Your task to perform on an android device: delete location history Image 0: 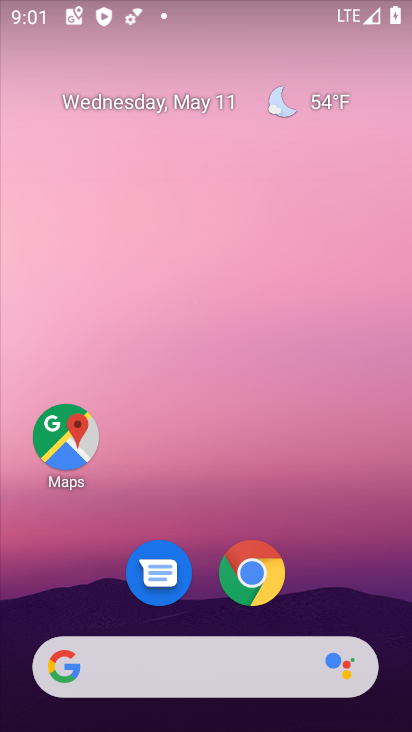
Step 0: drag from (159, 614) to (220, 12)
Your task to perform on an android device: delete location history Image 1: 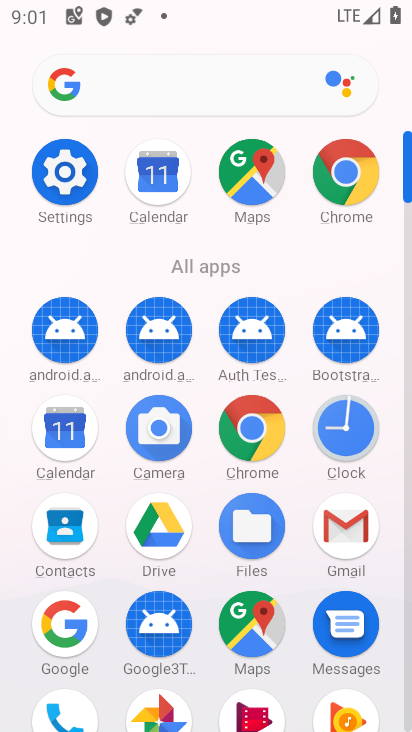
Step 1: click (243, 637)
Your task to perform on an android device: delete location history Image 2: 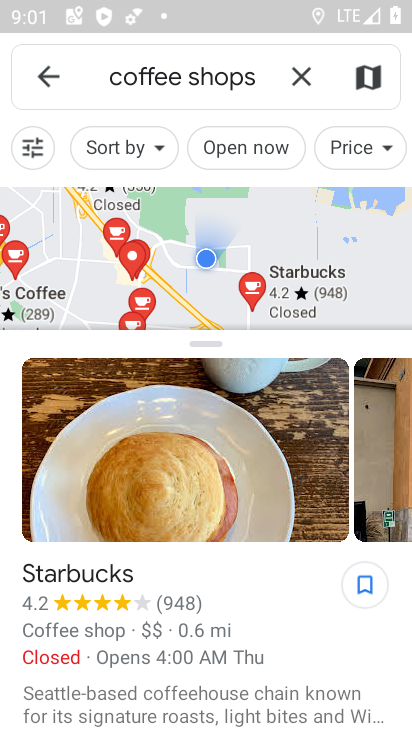
Step 2: click (297, 70)
Your task to perform on an android device: delete location history Image 3: 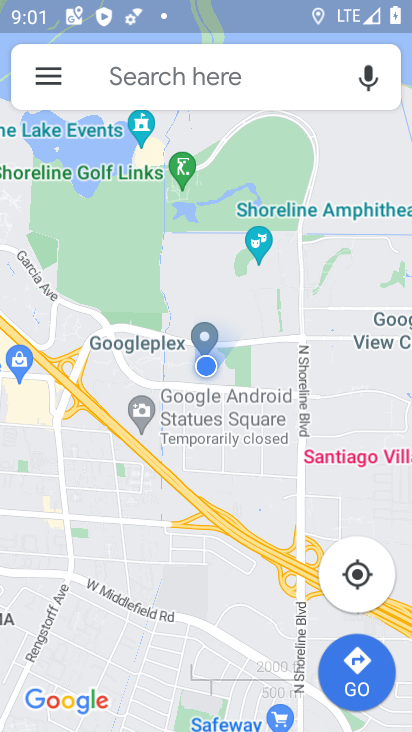
Step 3: click (47, 71)
Your task to perform on an android device: delete location history Image 4: 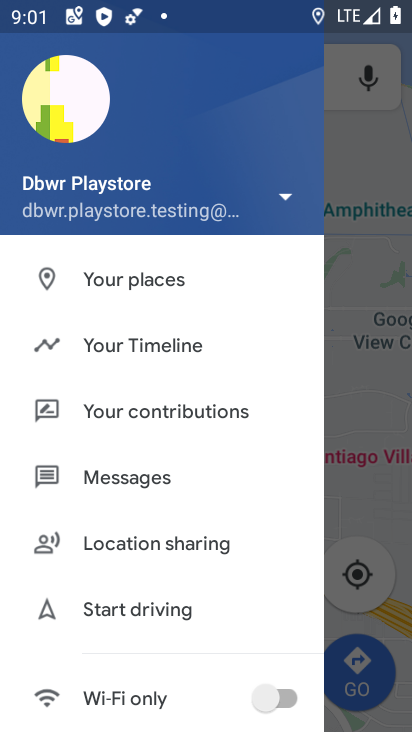
Step 4: drag from (153, 642) to (181, 371)
Your task to perform on an android device: delete location history Image 5: 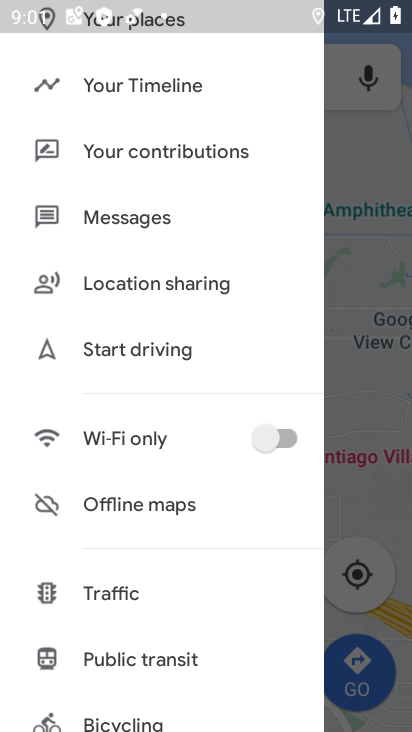
Step 5: click (162, 88)
Your task to perform on an android device: delete location history Image 6: 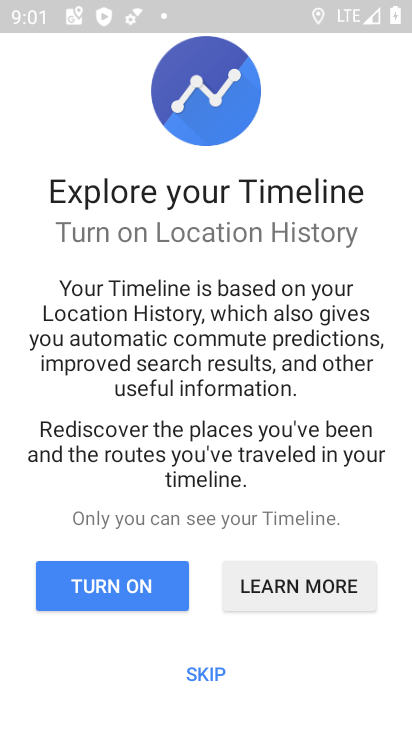
Step 6: click (213, 672)
Your task to perform on an android device: delete location history Image 7: 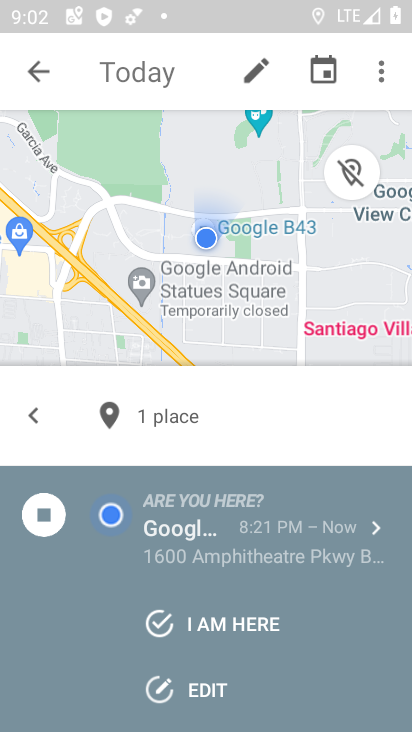
Step 7: click (389, 70)
Your task to perform on an android device: delete location history Image 8: 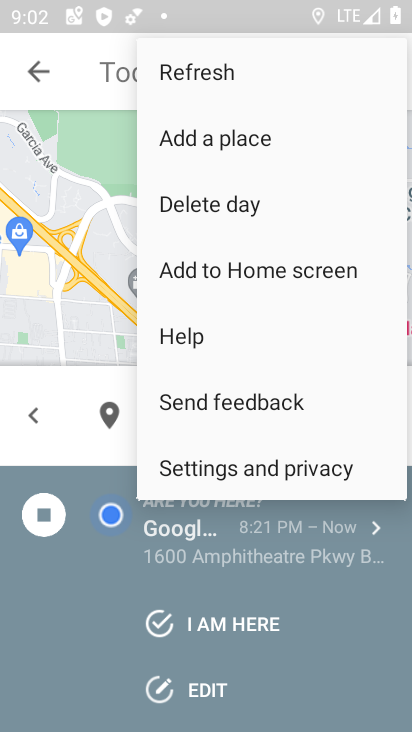
Step 8: click (224, 464)
Your task to perform on an android device: delete location history Image 9: 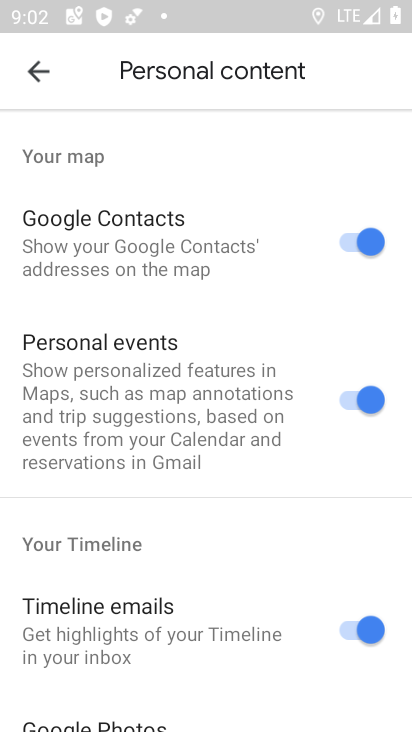
Step 9: drag from (115, 622) to (162, 161)
Your task to perform on an android device: delete location history Image 10: 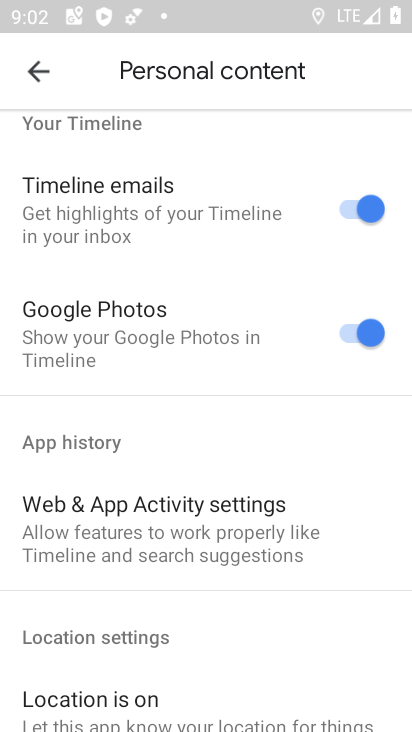
Step 10: drag from (99, 695) to (110, 199)
Your task to perform on an android device: delete location history Image 11: 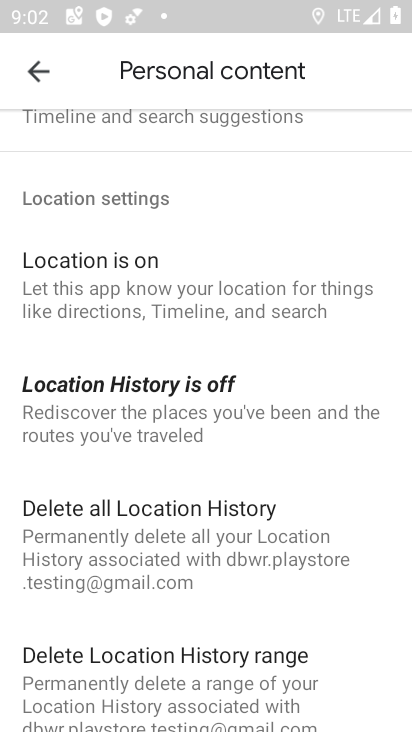
Step 11: click (115, 547)
Your task to perform on an android device: delete location history Image 12: 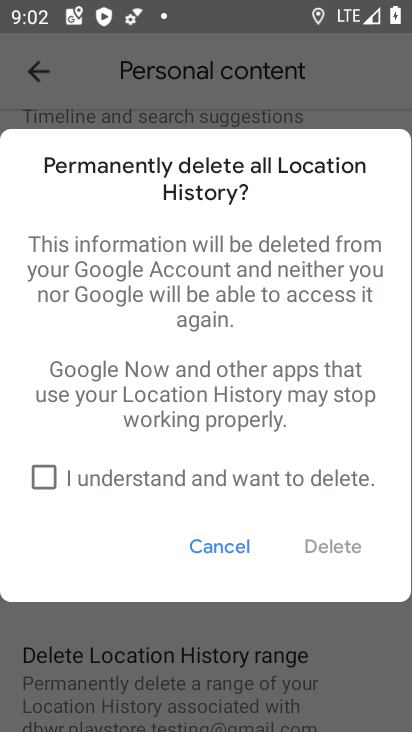
Step 12: click (27, 477)
Your task to perform on an android device: delete location history Image 13: 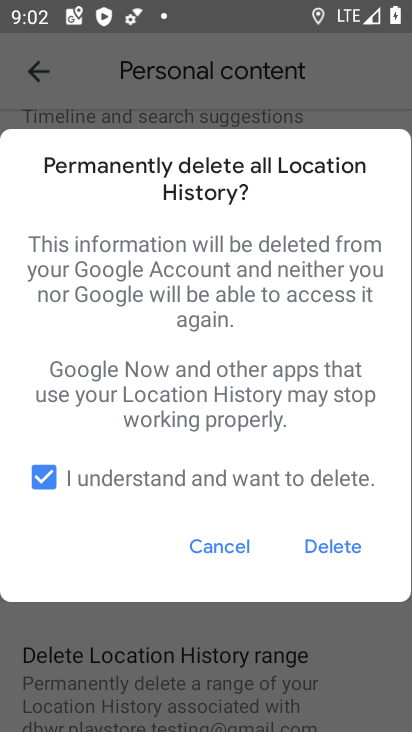
Step 13: click (342, 549)
Your task to perform on an android device: delete location history Image 14: 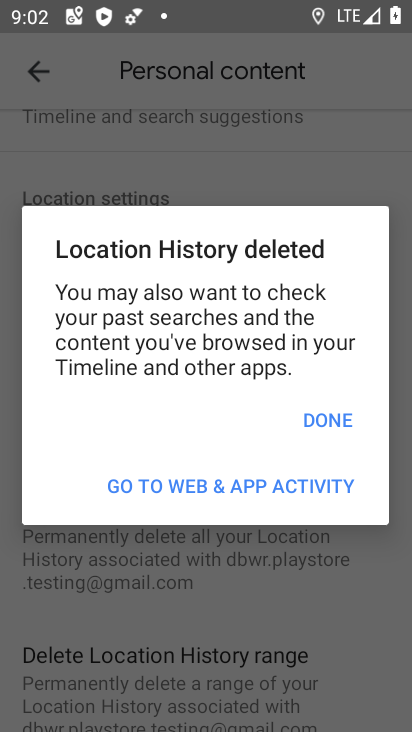
Step 14: click (322, 418)
Your task to perform on an android device: delete location history Image 15: 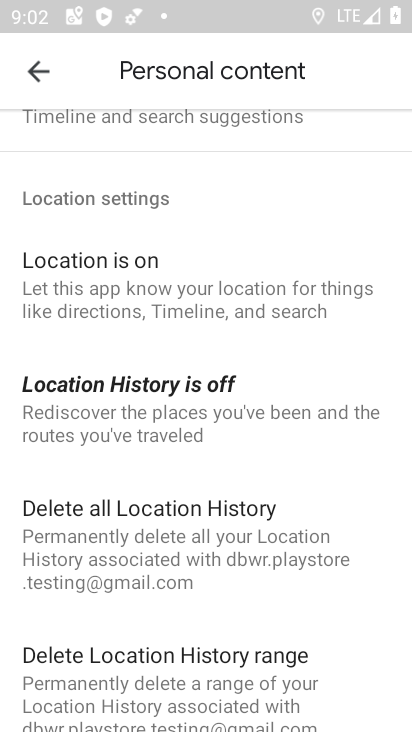
Step 15: task complete